Your task to perform on an android device: turn vacation reply on in the gmail app Image 0: 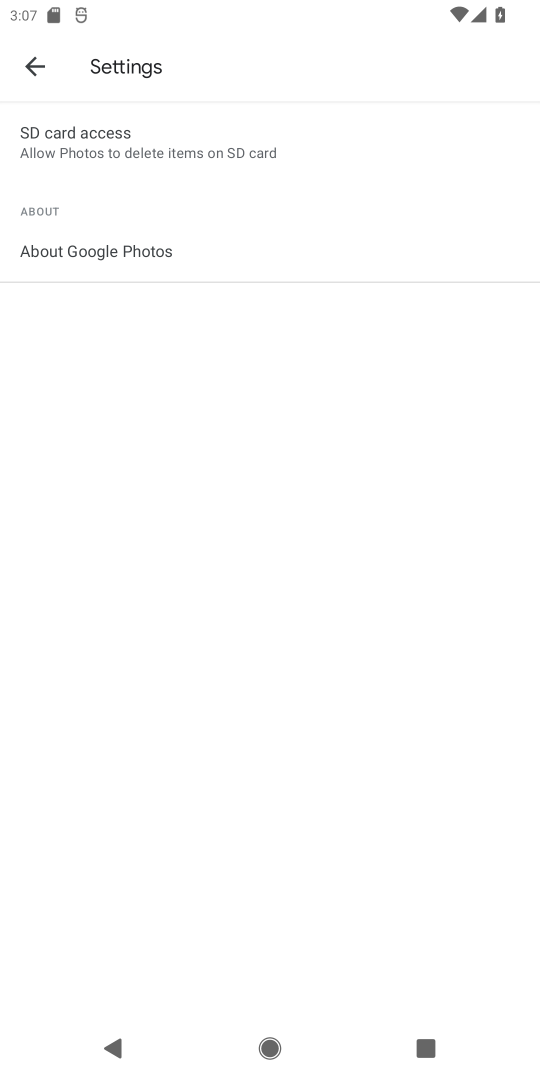
Step 0: press home button
Your task to perform on an android device: turn vacation reply on in the gmail app Image 1: 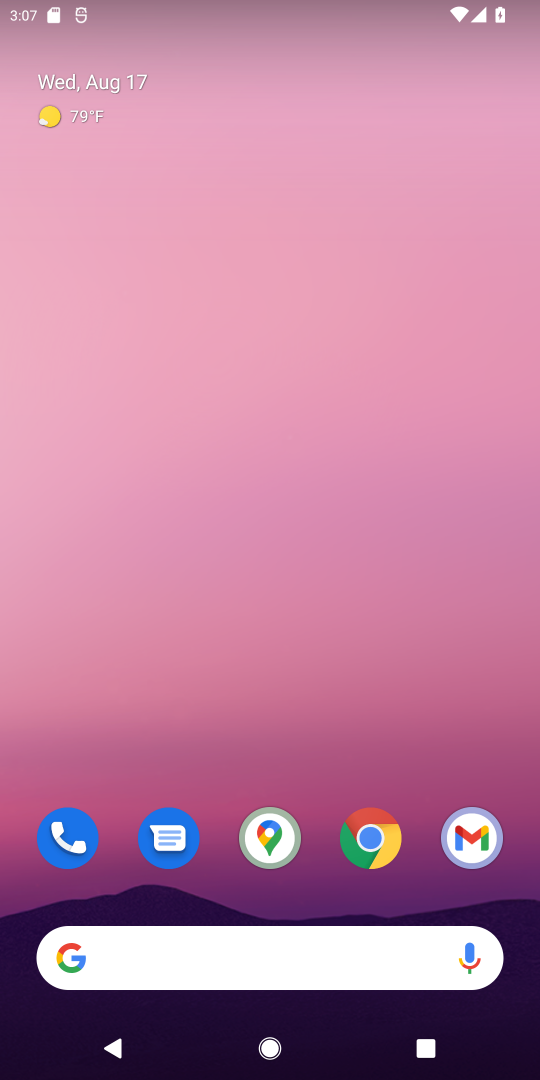
Step 1: click (458, 853)
Your task to perform on an android device: turn vacation reply on in the gmail app Image 2: 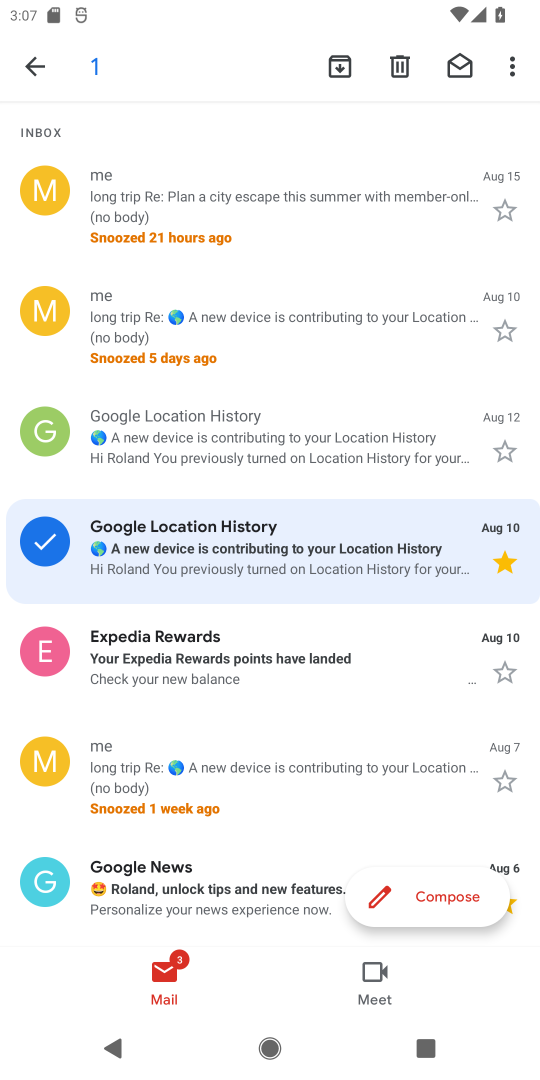
Step 2: click (501, 75)
Your task to perform on an android device: turn vacation reply on in the gmail app Image 3: 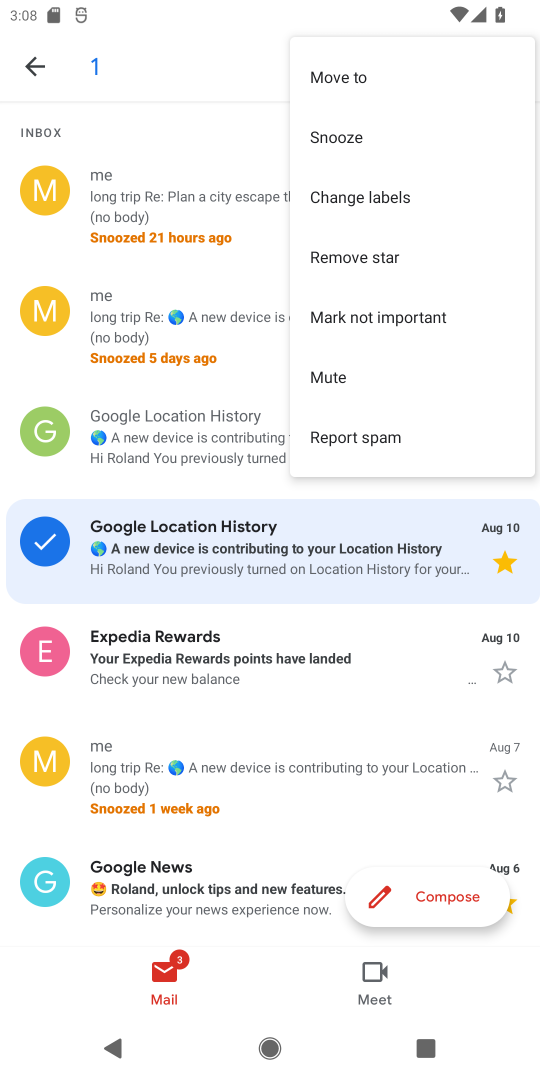
Step 3: click (31, 64)
Your task to perform on an android device: turn vacation reply on in the gmail app Image 4: 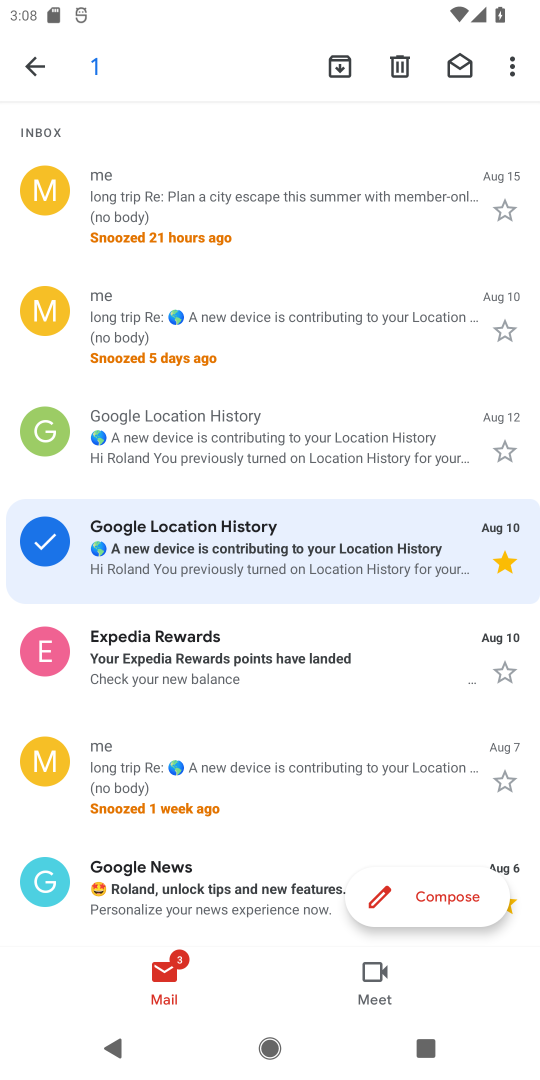
Step 4: click (31, 64)
Your task to perform on an android device: turn vacation reply on in the gmail app Image 5: 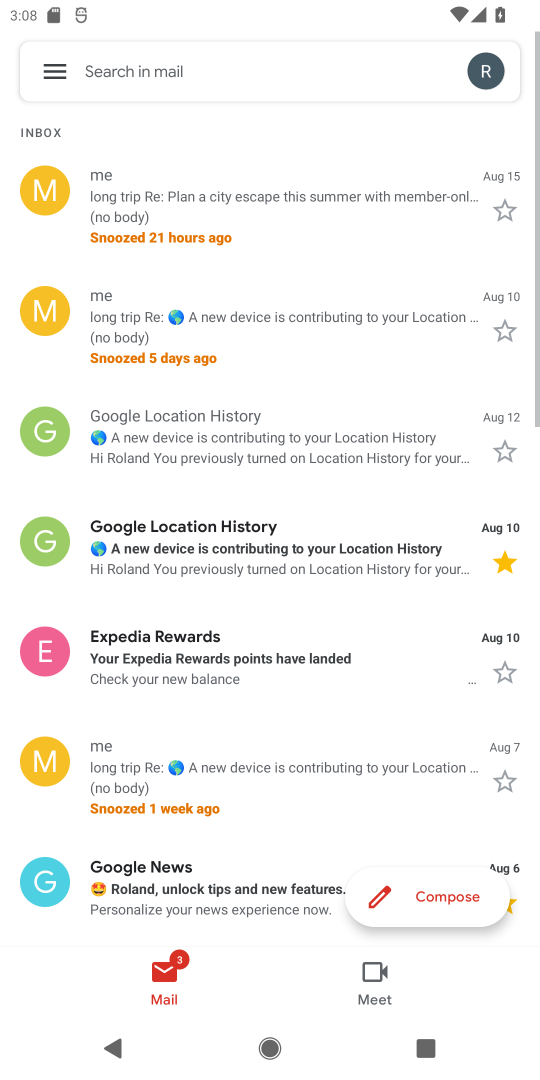
Step 5: click (67, 74)
Your task to perform on an android device: turn vacation reply on in the gmail app Image 6: 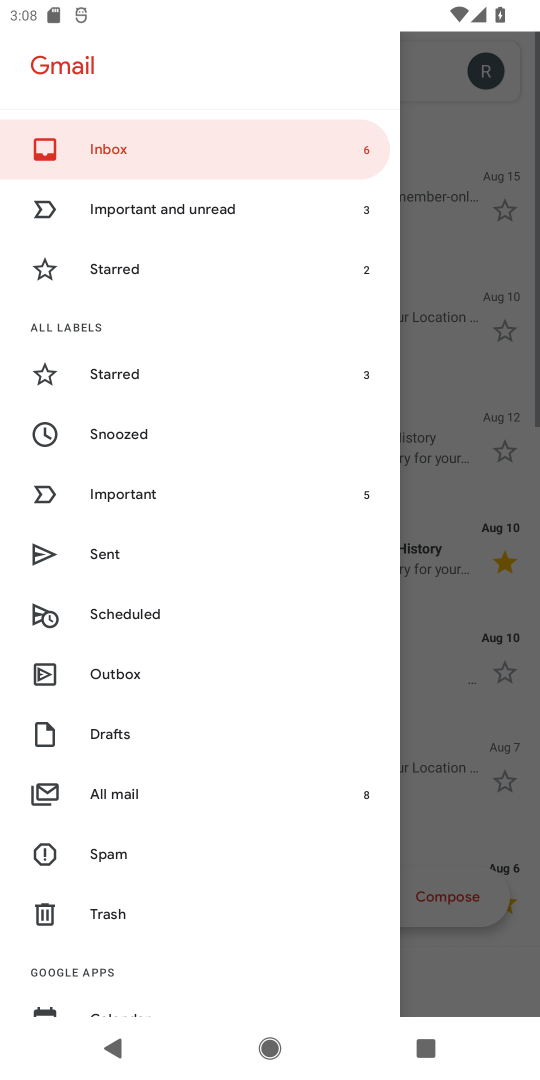
Step 6: drag from (119, 946) to (128, 438)
Your task to perform on an android device: turn vacation reply on in the gmail app Image 7: 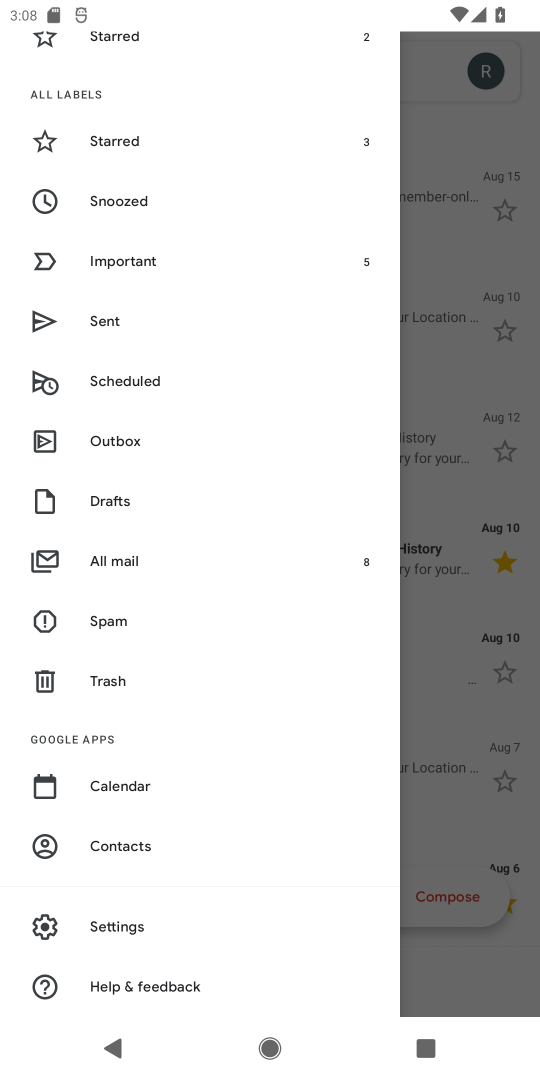
Step 7: click (117, 919)
Your task to perform on an android device: turn vacation reply on in the gmail app Image 8: 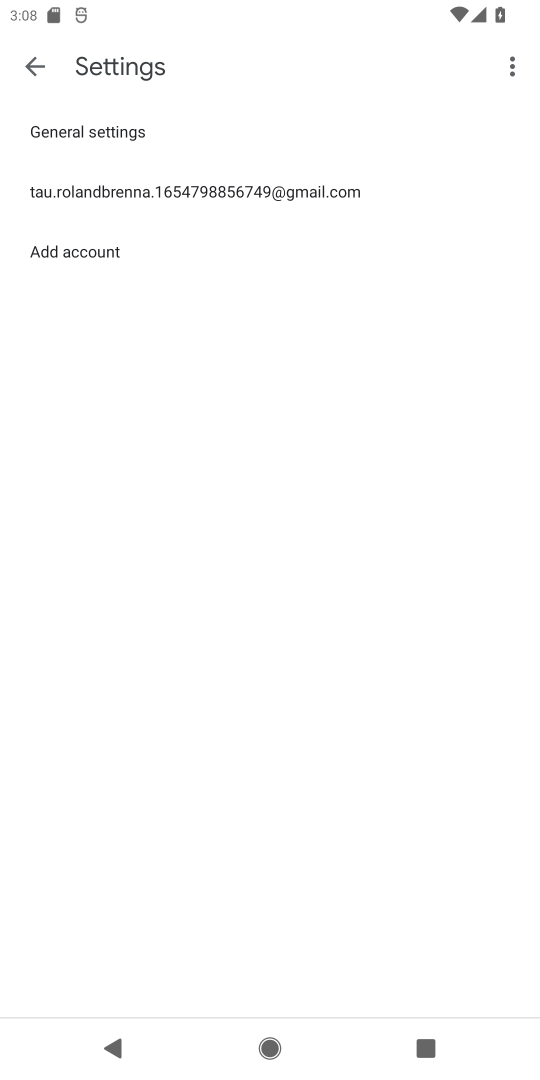
Step 8: click (122, 192)
Your task to perform on an android device: turn vacation reply on in the gmail app Image 9: 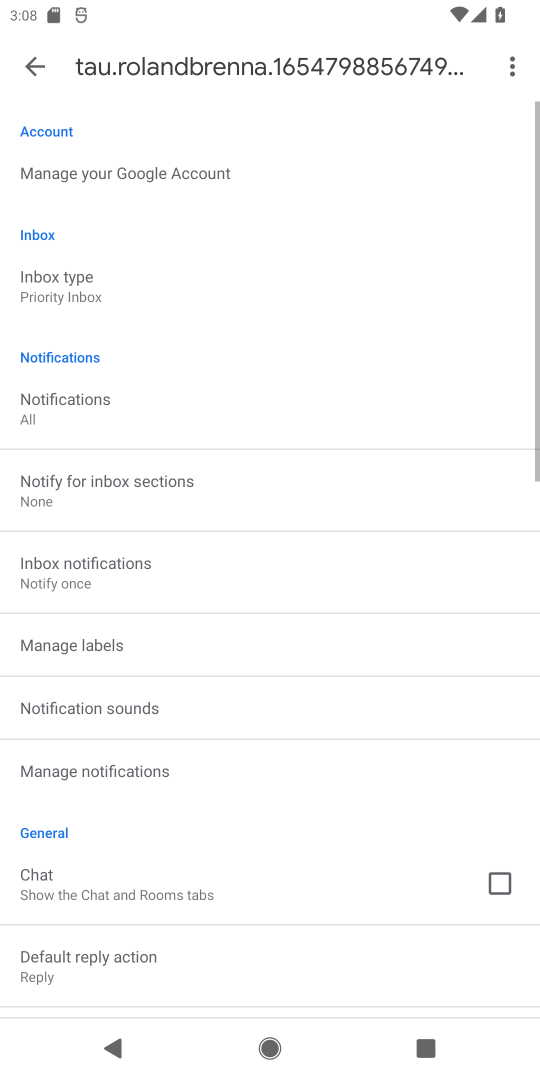
Step 9: drag from (170, 910) to (170, 565)
Your task to perform on an android device: turn vacation reply on in the gmail app Image 10: 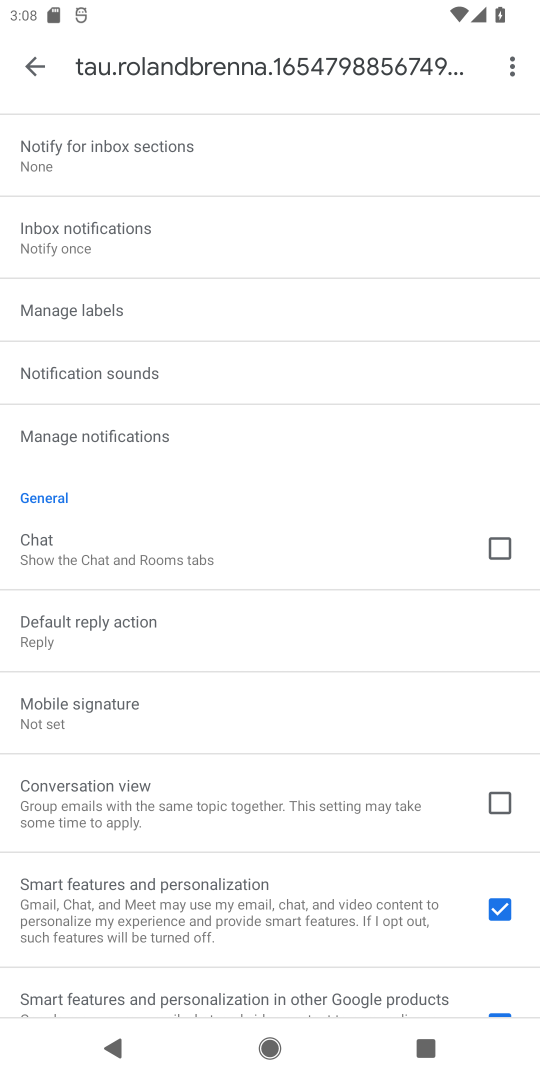
Step 10: drag from (172, 827) to (173, 369)
Your task to perform on an android device: turn vacation reply on in the gmail app Image 11: 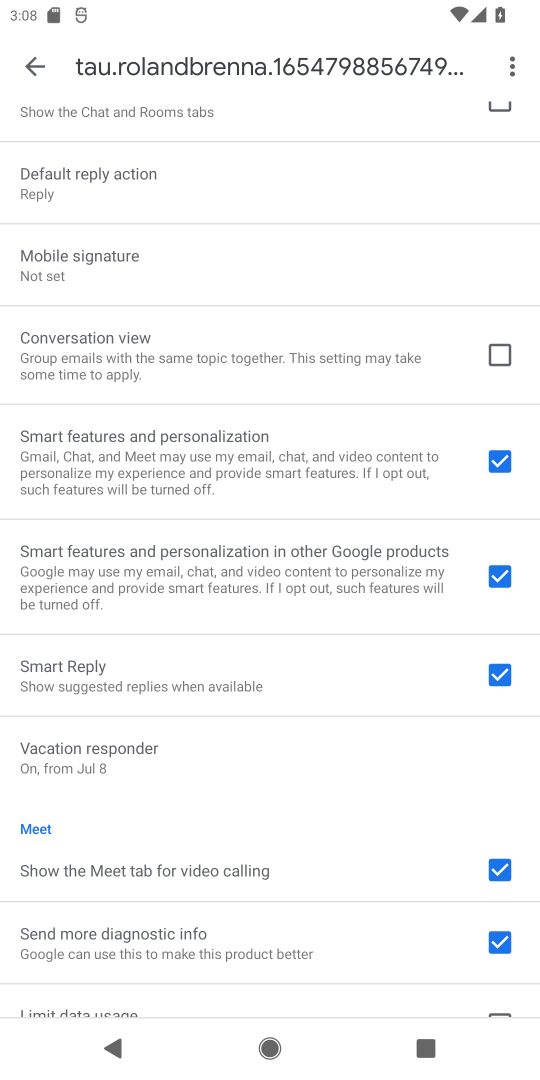
Step 11: click (85, 795)
Your task to perform on an android device: turn vacation reply on in the gmail app Image 12: 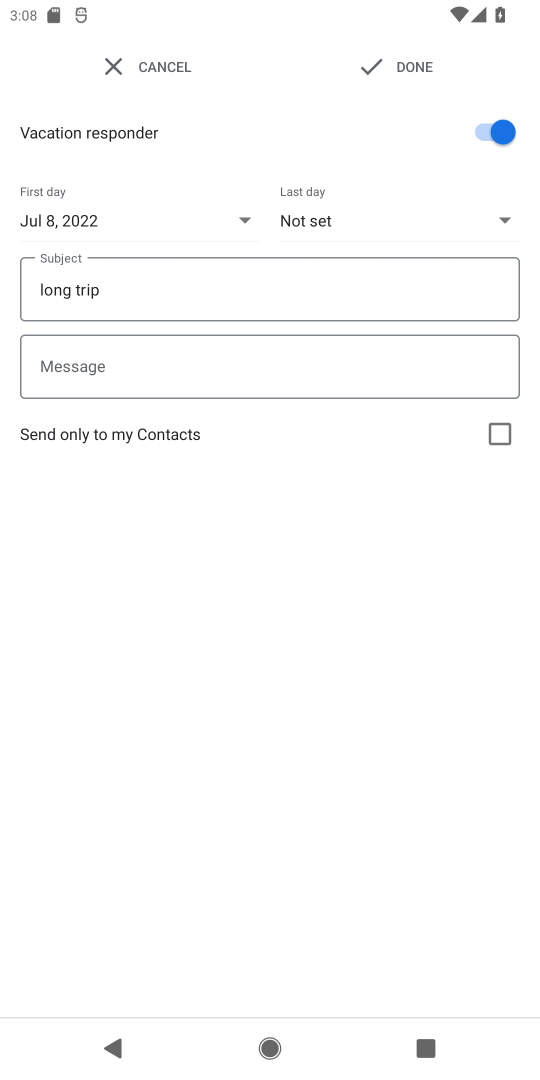
Step 12: click (427, 69)
Your task to perform on an android device: turn vacation reply on in the gmail app Image 13: 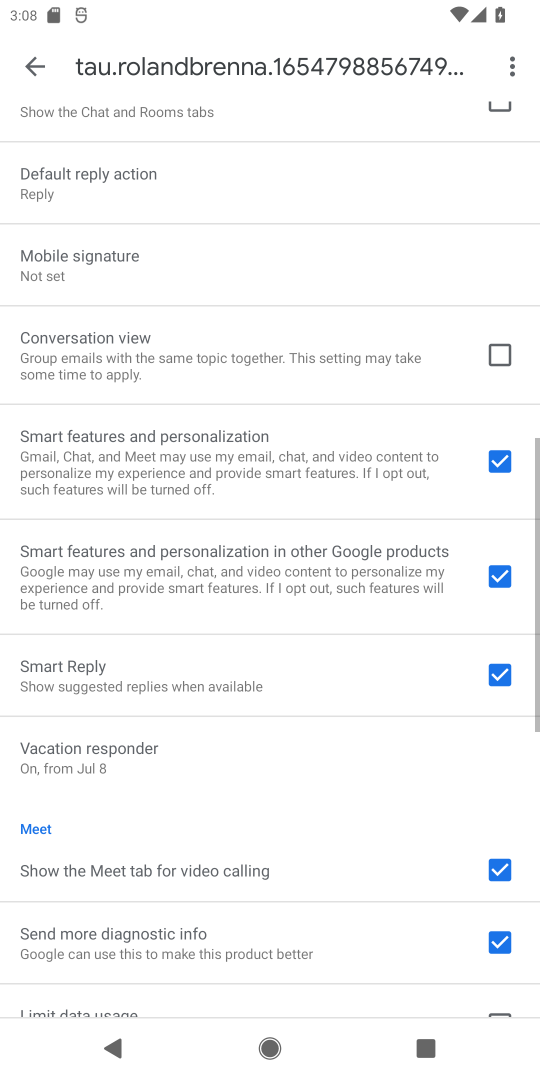
Step 13: task complete